Your task to perform on an android device: delete the emails in spam in the gmail app Image 0: 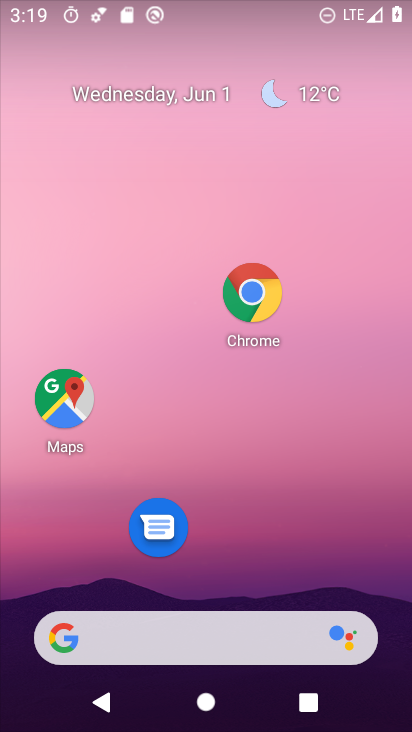
Step 0: drag from (210, 546) to (210, 508)
Your task to perform on an android device: delete the emails in spam in the gmail app Image 1: 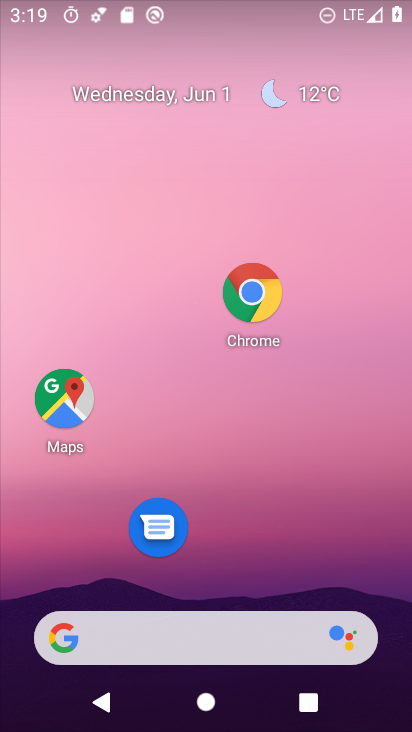
Step 1: drag from (202, 680) to (254, 160)
Your task to perform on an android device: delete the emails in spam in the gmail app Image 2: 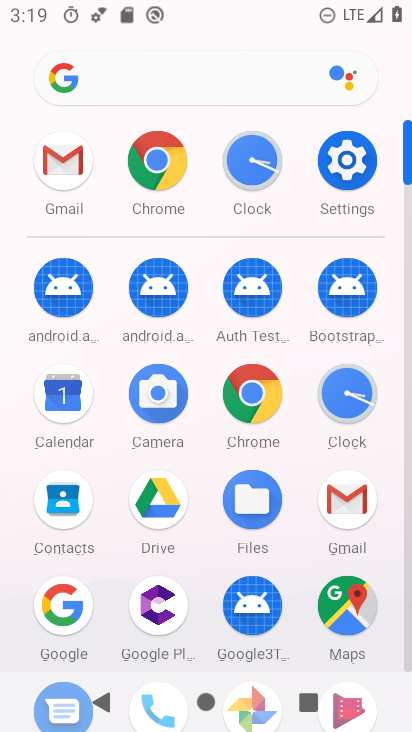
Step 2: click (352, 527)
Your task to perform on an android device: delete the emails in spam in the gmail app Image 3: 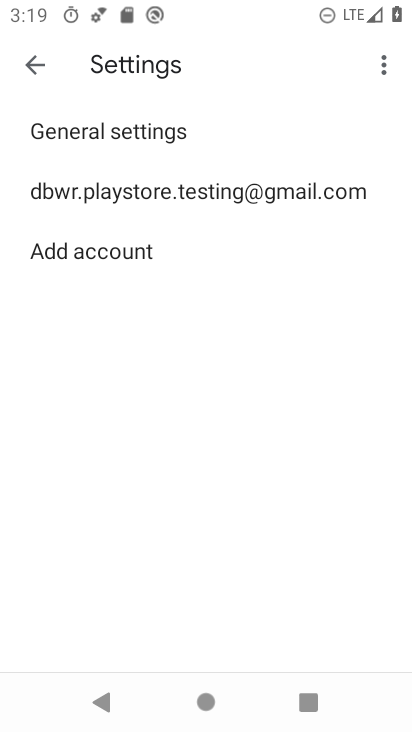
Step 3: click (348, 514)
Your task to perform on an android device: delete the emails in spam in the gmail app Image 4: 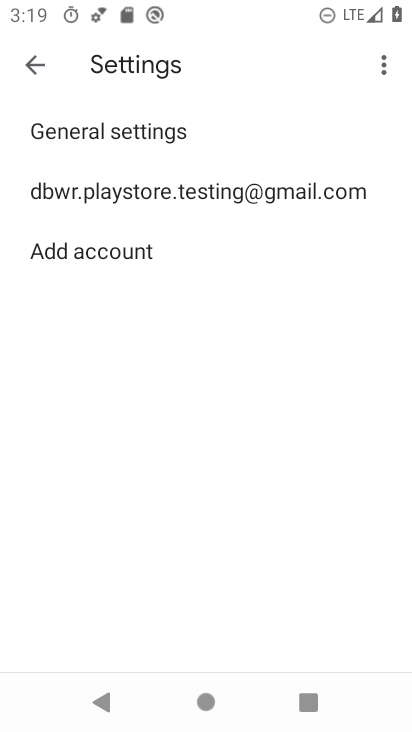
Step 4: click (31, 70)
Your task to perform on an android device: delete the emails in spam in the gmail app Image 5: 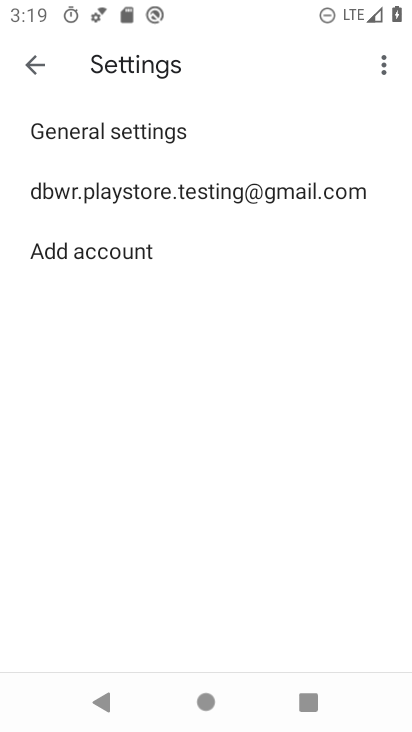
Step 5: click (35, 62)
Your task to perform on an android device: delete the emails in spam in the gmail app Image 6: 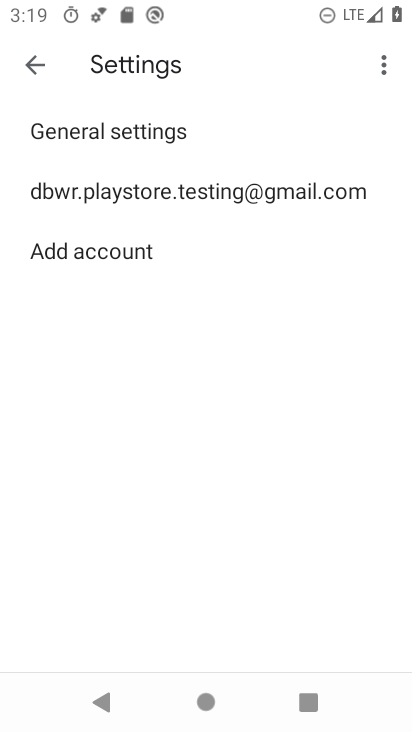
Step 6: click (40, 76)
Your task to perform on an android device: delete the emails in spam in the gmail app Image 7: 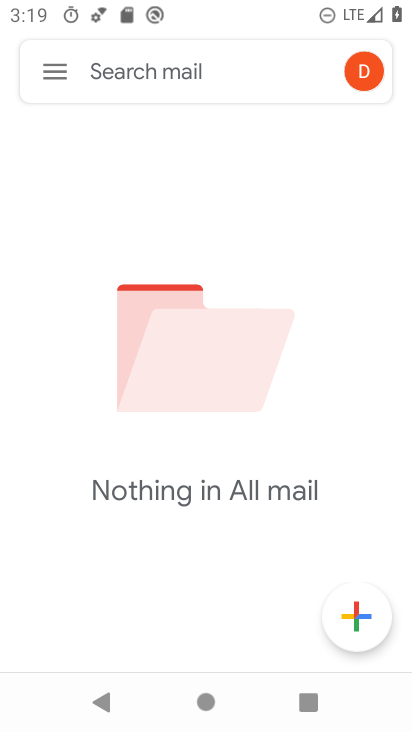
Step 7: click (51, 79)
Your task to perform on an android device: delete the emails in spam in the gmail app Image 8: 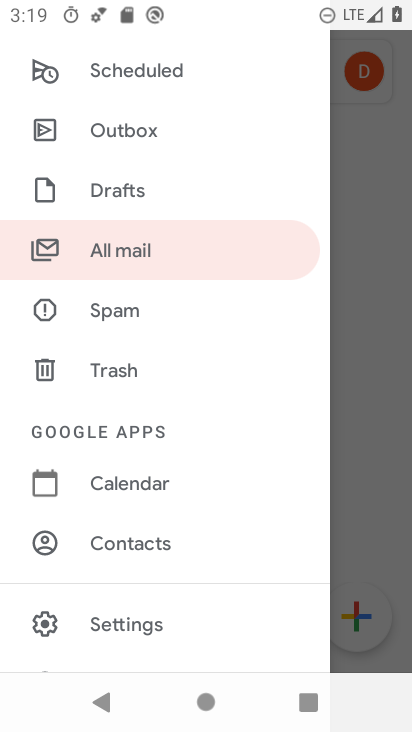
Step 8: click (129, 325)
Your task to perform on an android device: delete the emails in spam in the gmail app Image 9: 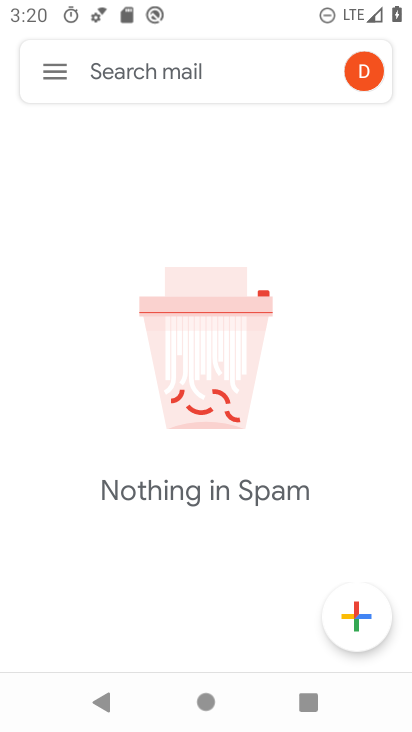
Step 9: task complete